Your task to perform on an android device: open sync settings in chrome Image 0: 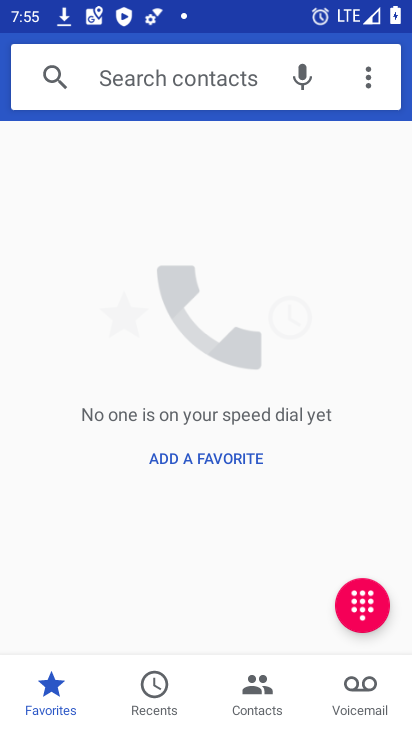
Step 0: press home button
Your task to perform on an android device: open sync settings in chrome Image 1: 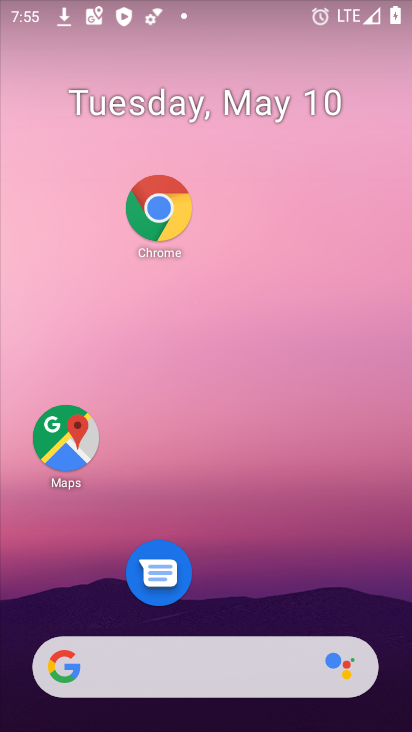
Step 1: drag from (315, 700) to (318, 250)
Your task to perform on an android device: open sync settings in chrome Image 2: 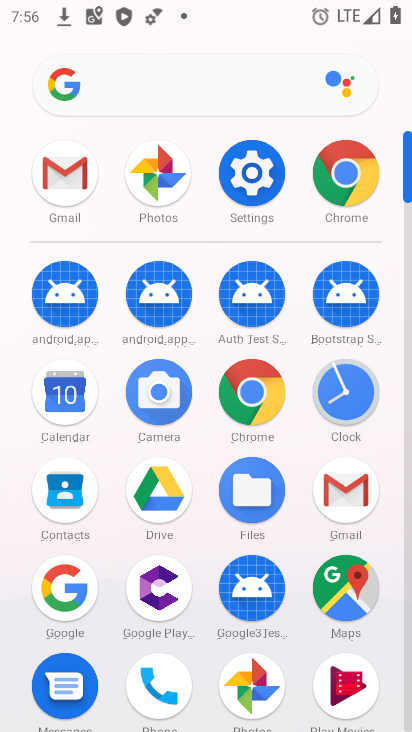
Step 2: click (312, 171)
Your task to perform on an android device: open sync settings in chrome Image 3: 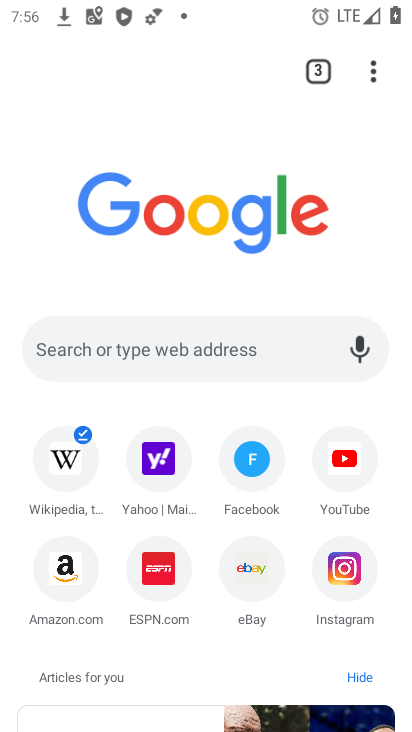
Step 3: click (359, 86)
Your task to perform on an android device: open sync settings in chrome Image 4: 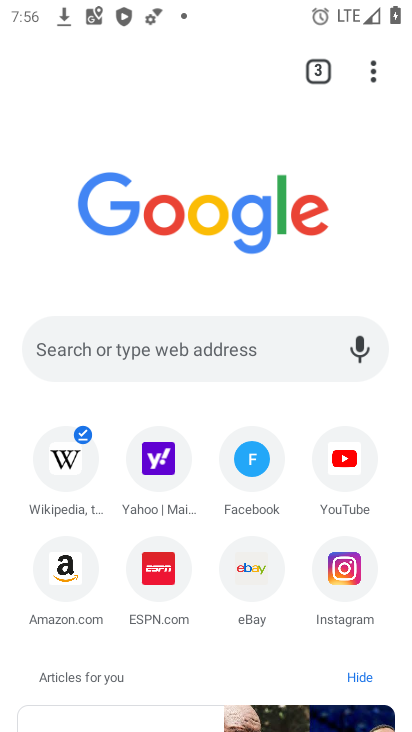
Step 4: click (368, 85)
Your task to perform on an android device: open sync settings in chrome Image 5: 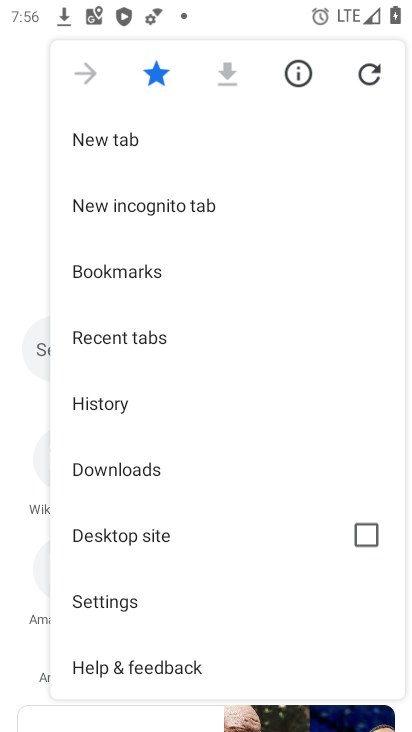
Step 5: click (99, 594)
Your task to perform on an android device: open sync settings in chrome Image 6: 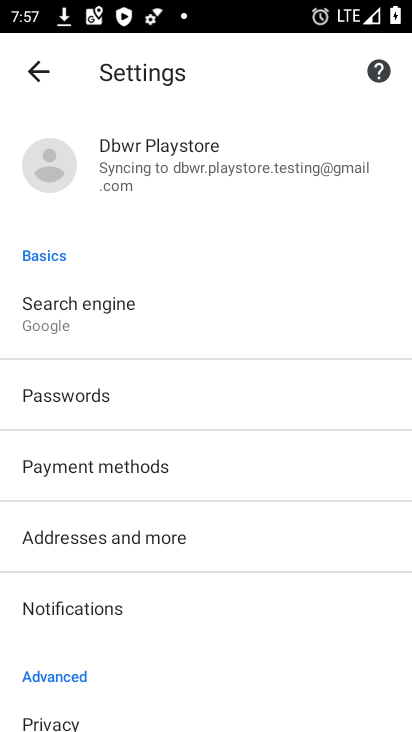
Step 6: drag from (240, 631) to (300, 164)
Your task to perform on an android device: open sync settings in chrome Image 7: 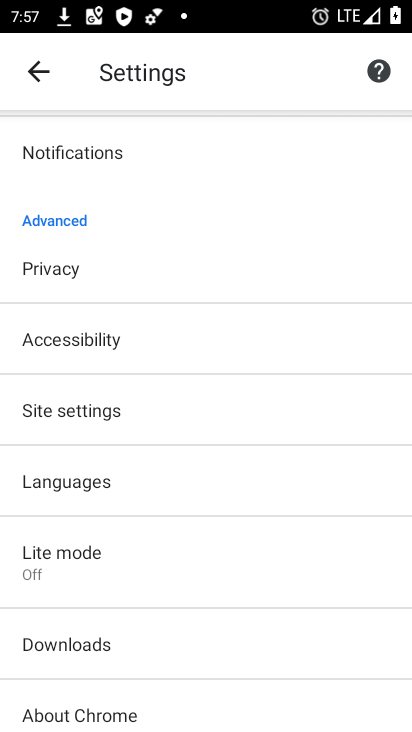
Step 7: click (107, 412)
Your task to perform on an android device: open sync settings in chrome Image 8: 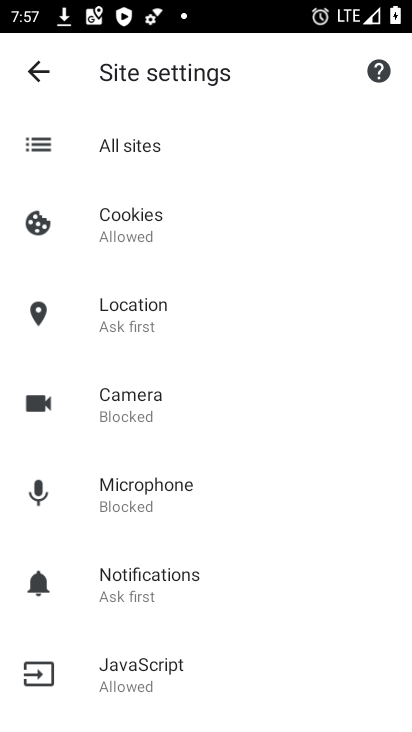
Step 8: drag from (178, 663) to (244, 475)
Your task to perform on an android device: open sync settings in chrome Image 9: 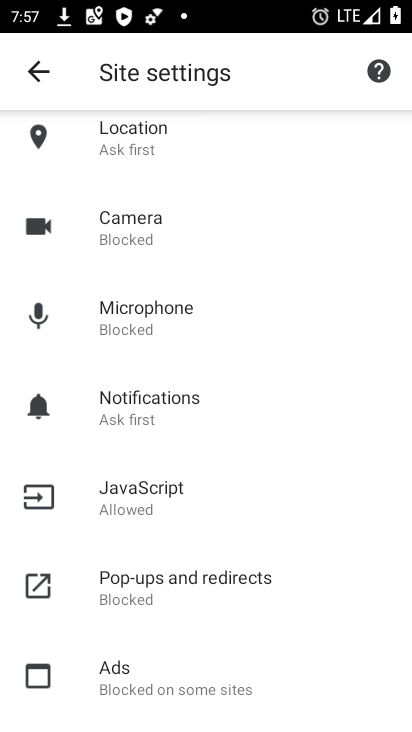
Step 9: drag from (200, 655) to (242, 374)
Your task to perform on an android device: open sync settings in chrome Image 10: 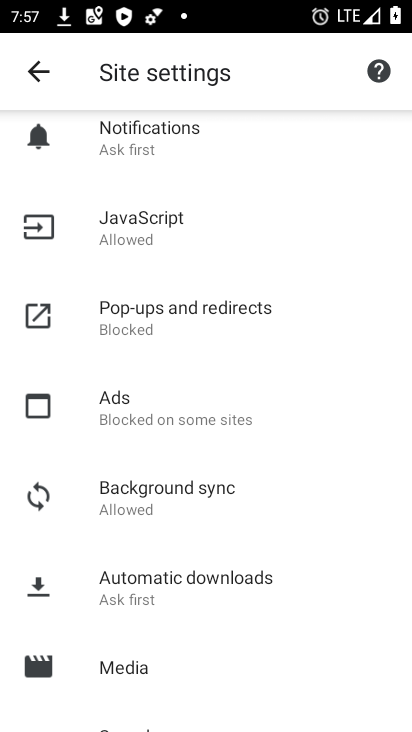
Step 10: click (224, 508)
Your task to perform on an android device: open sync settings in chrome Image 11: 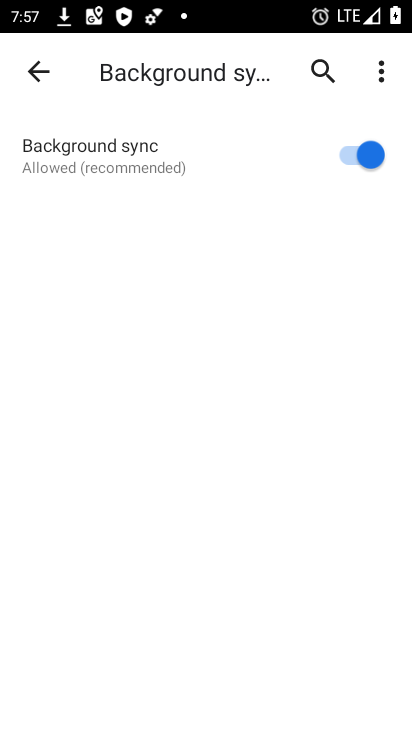
Step 11: task complete